Your task to perform on an android device: Is it going to rain tomorrow? Image 0: 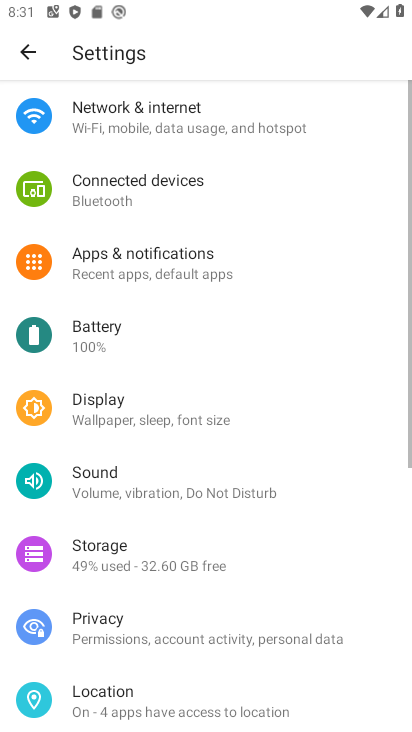
Step 0: press home button
Your task to perform on an android device: Is it going to rain tomorrow? Image 1: 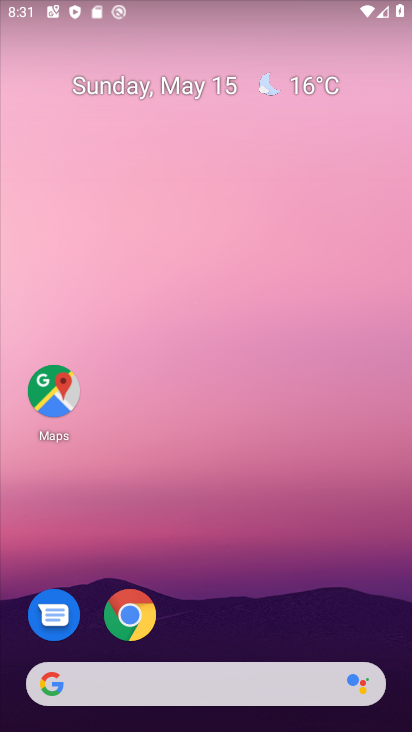
Step 1: click (312, 87)
Your task to perform on an android device: Is it going to rain tomorrow? Image 2: 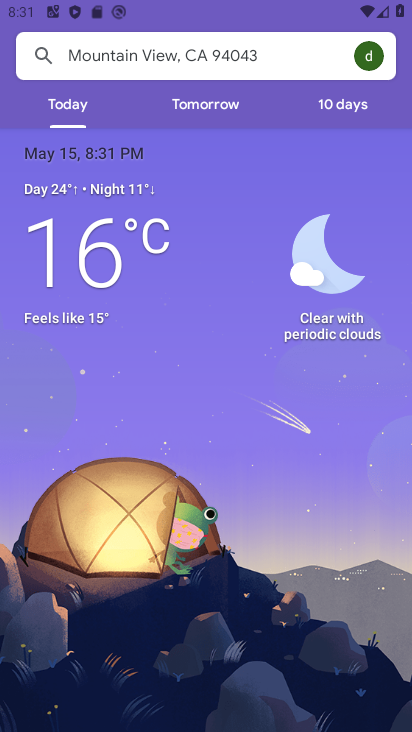
Step 2: click (202, 102)
Your task to perform on an android device: Is it going to rain tomorrow? Image 3: 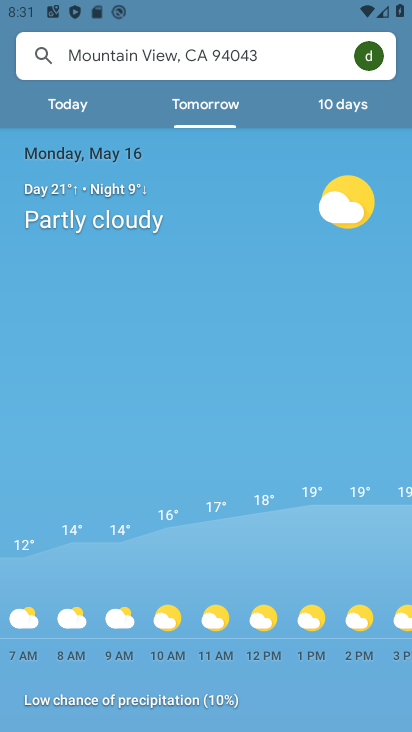
Step 3: task complete